Your task to perform on an android device: What's the weather going to be tomorrow? Image 0: 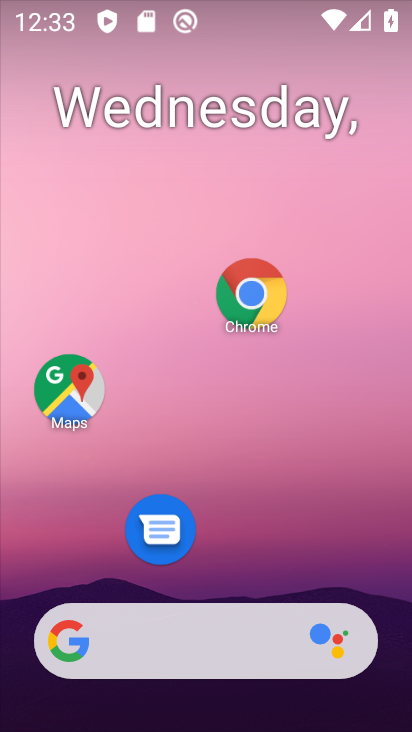
Step 0: drag from (203, 347) to (203, 246)
Your task to perform on an android device: What's the weather going to be tomorrow? Image 1: 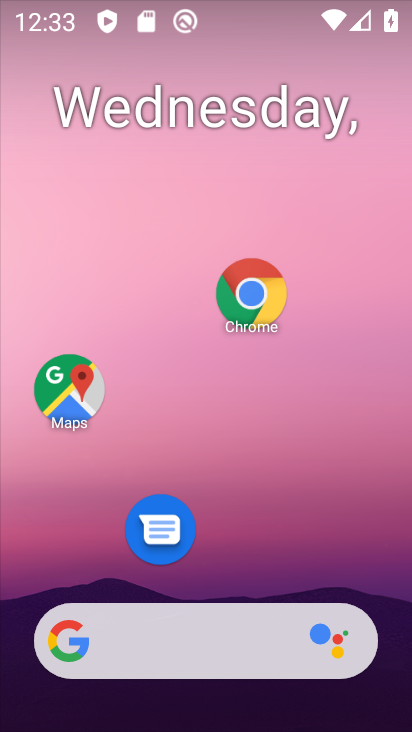
Step 1: drag from (189, 455) to (144, 143)
Your task to perform on an android device: What's the weather going to be tomorrow? Image 2: 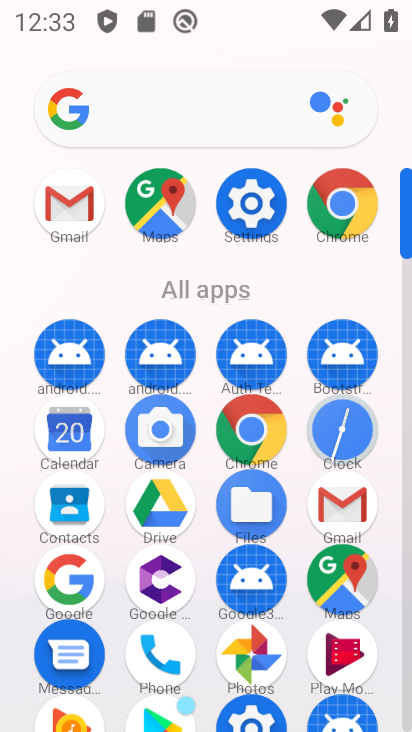
Step 2: drag from (166, 578) to (169, 396)
Your task to perform on an android device: What's the weather going to be tomorrow? Image 3: 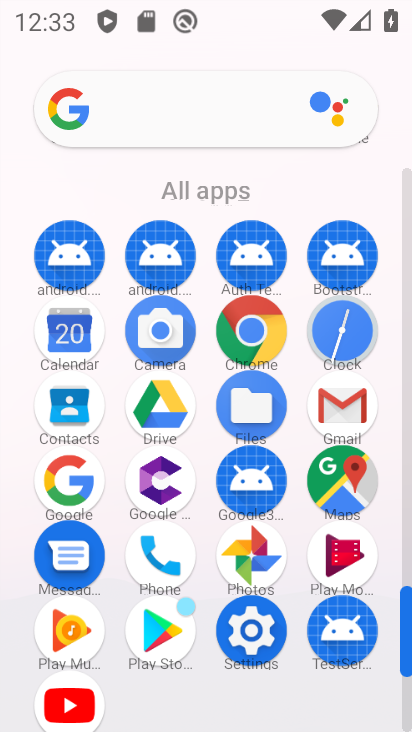
Step 3: click (56, 501)
Your task to perform on an android device: What's the weather going to be tomorrow? Image 4: 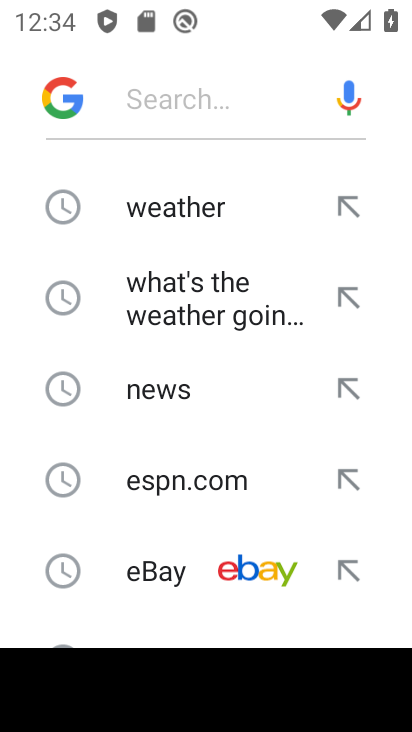
Step 4: click (184, 216)
Your task to perform on an android device: What's the weather going to be tomorrow? Image 5: 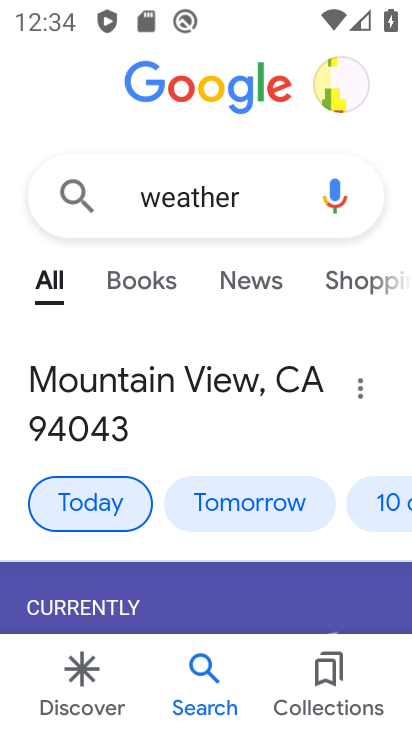
Step 5: click (260, 498)
Your task to perform on an android device: What's the weather going to be tomorrow? Image 6: 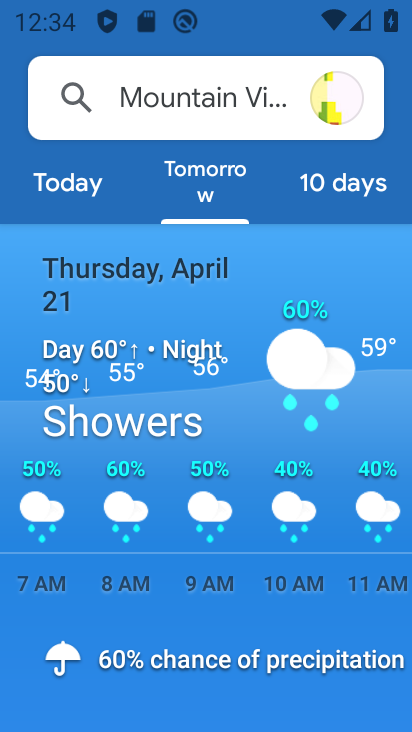
Step 6: task complete